Your task to perform on an android device: Open Maps and search for coffee Image 0: 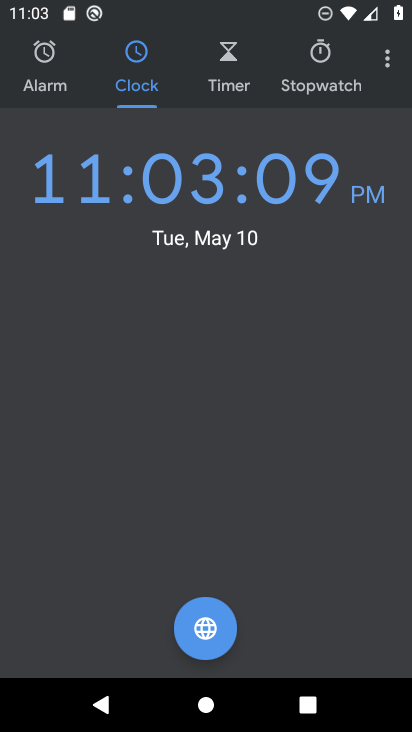
Step 0: press home button
Your task to perform on an android device: Open Maps and search for coffee Image 1: 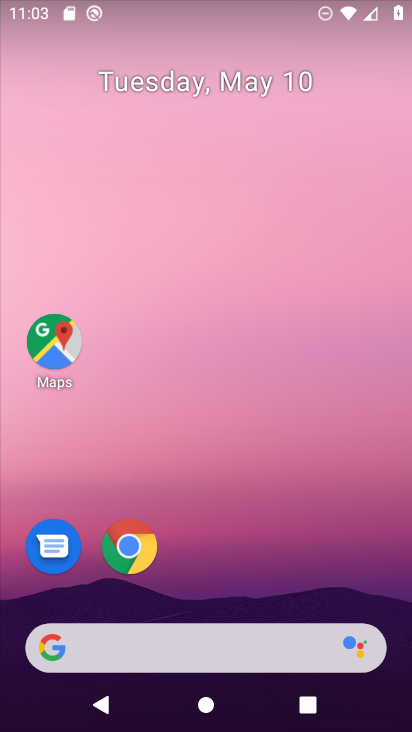
Step 1: click (61, 346)
Your task to perform on an android device: Open Maps and search for coffee Image 2: 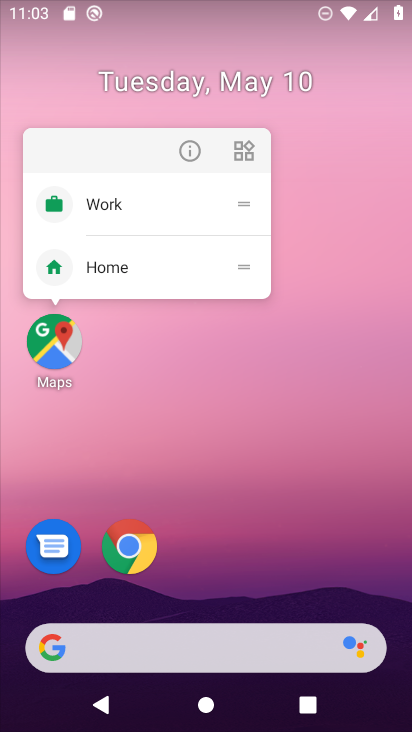
Step 2: click (60, 345)
Your task to perform on an android device: Open Maps and search for coffee Image 3: 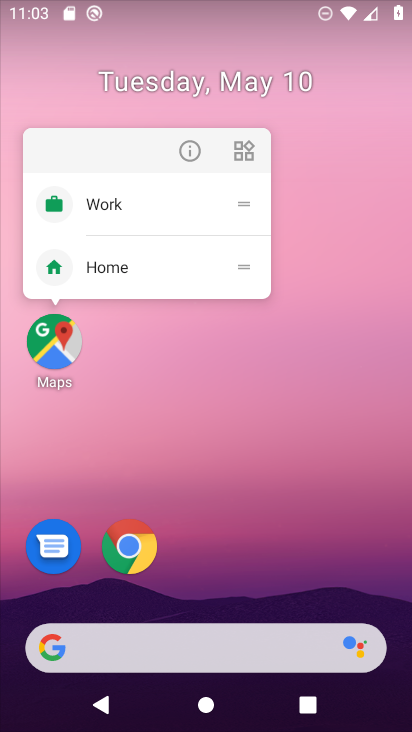
Step 3: click (40, 347)
Your task to perform on an android device: Open Maps and search for coffee Image 4: 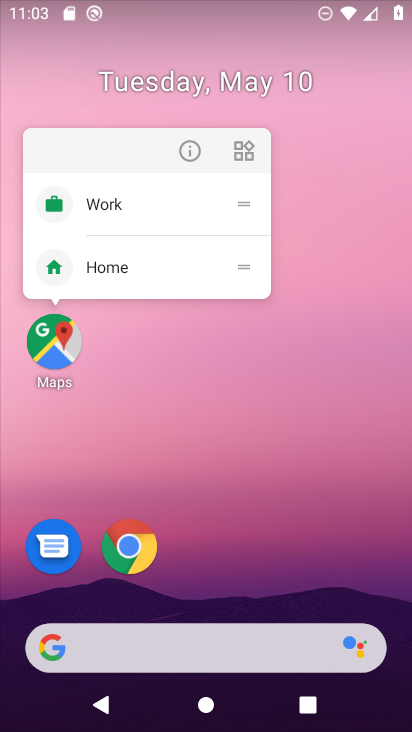
Step 4: click (48, 351)
Your task to perform on an android device: Open Maps and search for coffee Image 5: 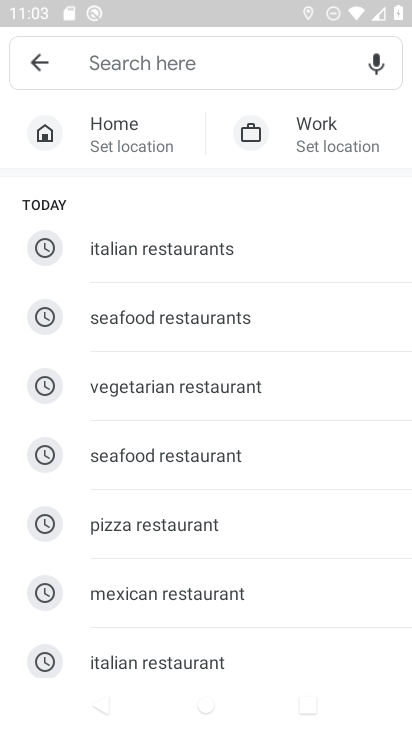
Step 5: type "coffee"
Your task to perform on an android device: Open Maps and search for coffee Image 6: 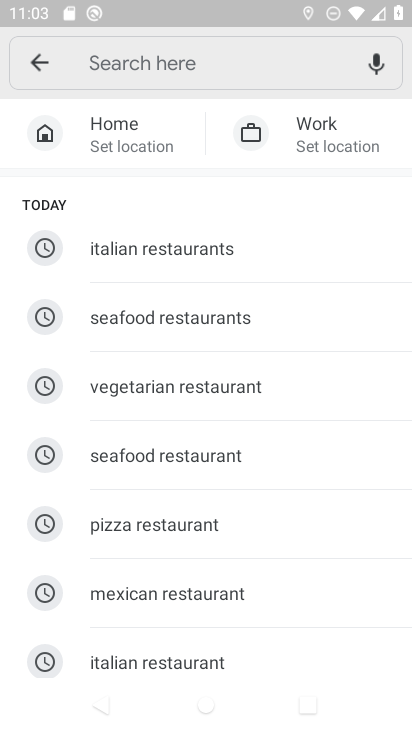
Step 6: click (289, 51)
Your task to perform on an android device: Open Maps and search for coffee Image 7: 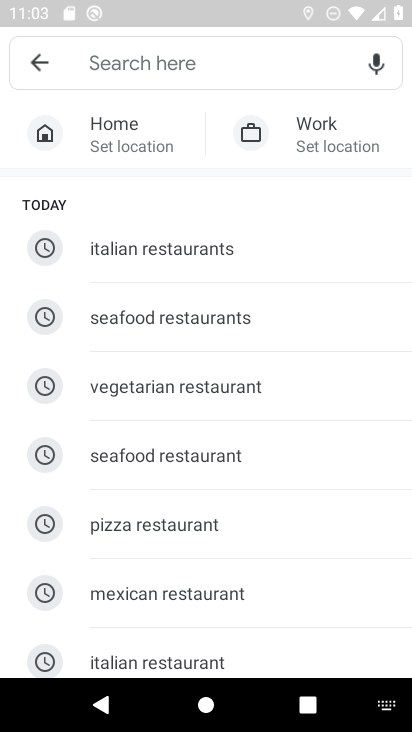
Step 7: type "coffee"
Your task to perform on an android device: Open Maps and search for coffee Image 8: 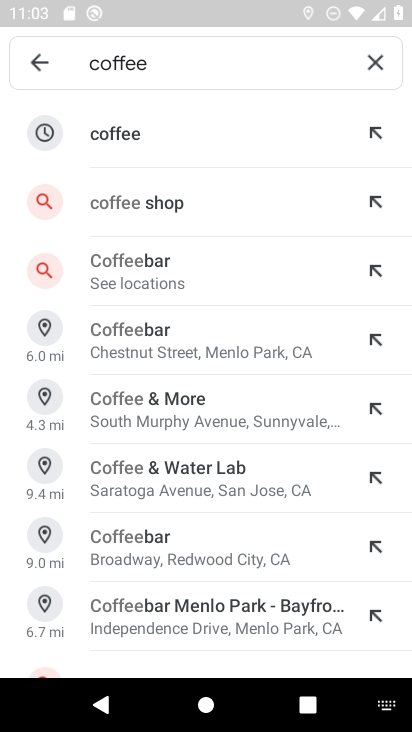
Step 8: click (123, 147)
Your task to perform on an android device: Open Maps and search for coffee Image 9: 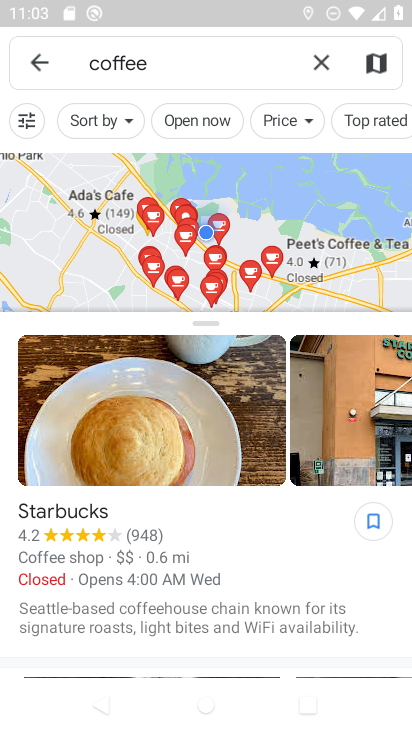
Step 9: task complete